Your task to perform on an android device: toggle wifi Image 0: 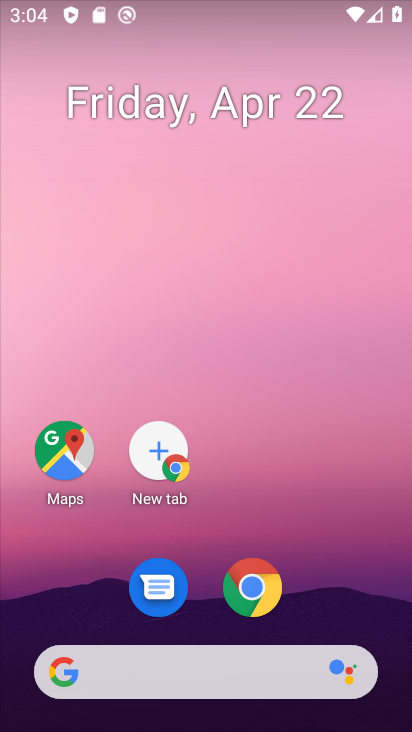
Step 0: drag from (196, 14) to (233, 415)
Your task to perform on an android device: toggle wifi Image 1: 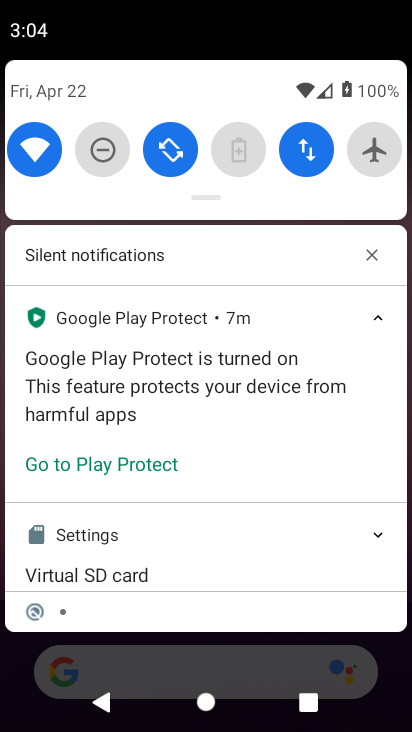
Step 1: click (42, 158)
Your task to perform on an android device: toggle wifi Image 2: 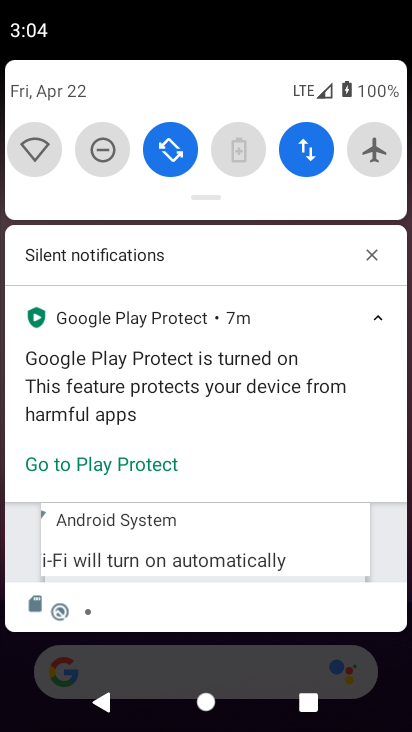
Step 2: click (42, 158)
Your task to perform on an android device: toggle wifi Image 3: 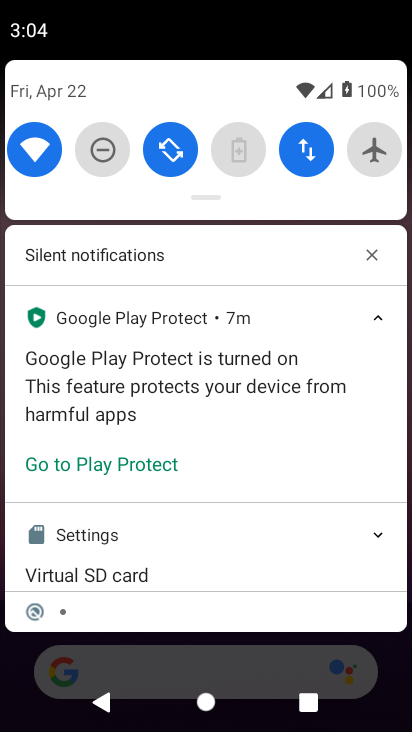
Step 3: task complete